Your task to perform on an android device: turn off wifi Image 0: 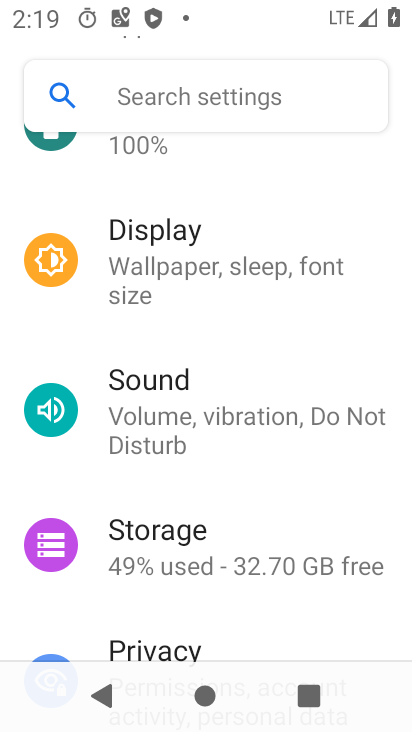
Step 0: drag from (260, 258) to (410, 378)
Your task to perform on an android device: turn off wifi Image 1: 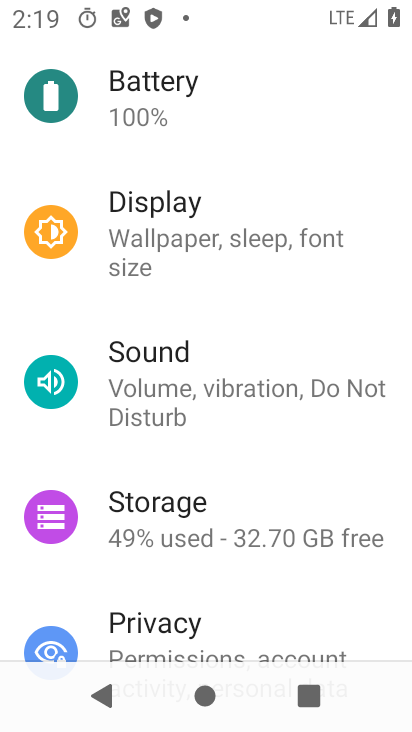
Step 1: drag from (321, 255) to (300, 704)
Your task to perform on an android device: turn off wifi Image 2: 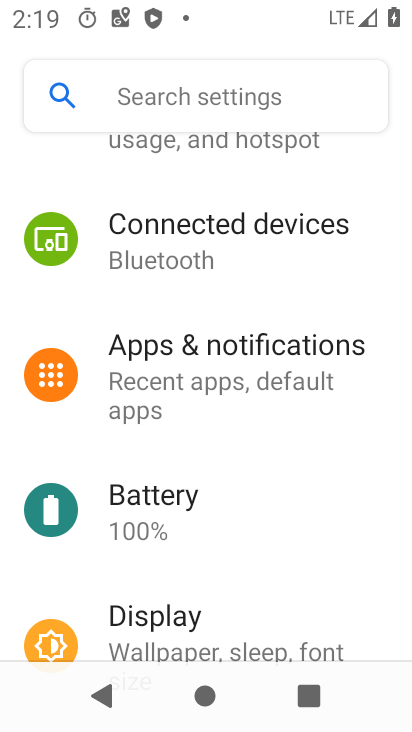
Step 2: drag from (298, 189) to (290, 654)
Your task to perform on an android device: turn off wifi Image 3: 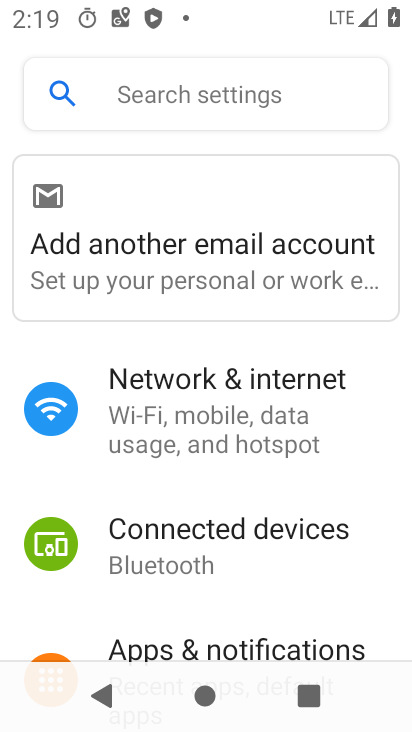
Step 3: click (246, 448)
Your task to perform on an android device: turn off wifi Image 4: 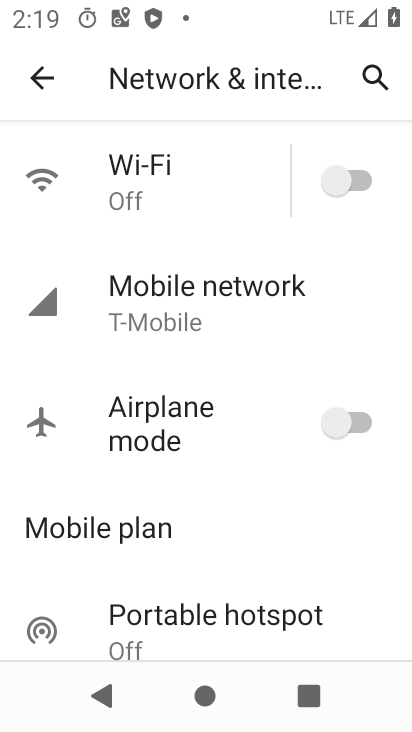
Step 4: task complete